Your task to perform on an android device: Open calendar and show me the fourth week of next month Image 0: 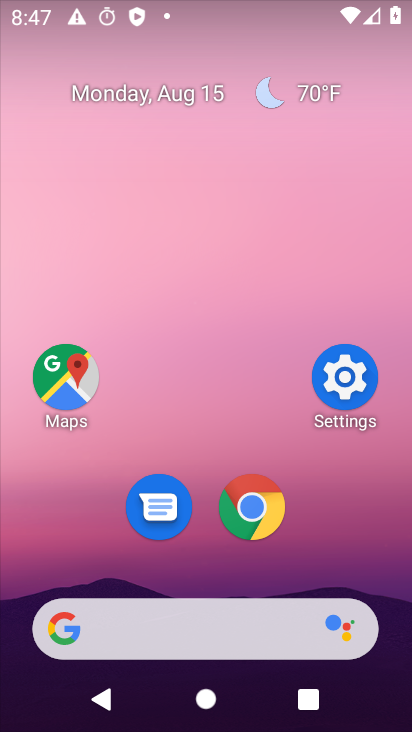
Step 0: drag from (149, 646) to (365, 56)
Your task to perform on an android device: Open calendar and show me the fourth week of next month Image 1: 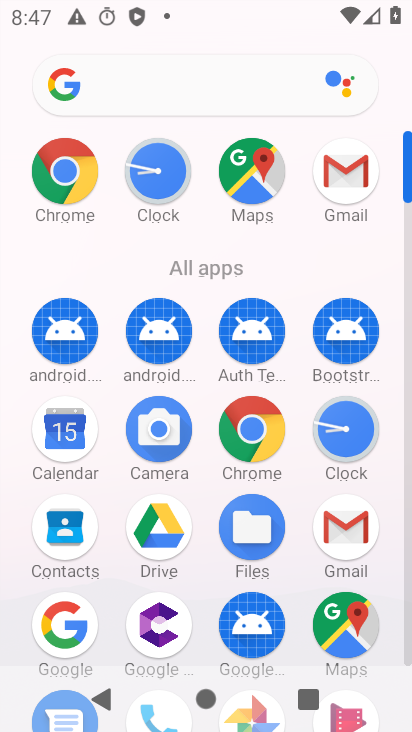
Step 1: click (60, 434)
Your task to perform on an android device: Open calendar and show me the fourth week of next month Image 2: 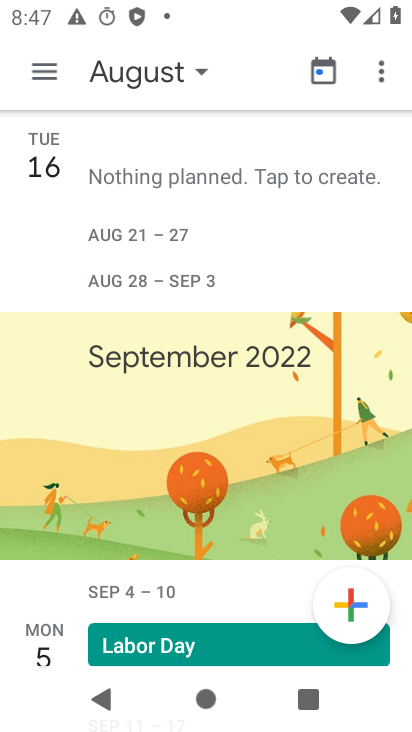
Step 2: drag from (165, 517) to (263, 63)
Your task to perform on an android device: Open calendar and show me the fourth week of next month Image 3: 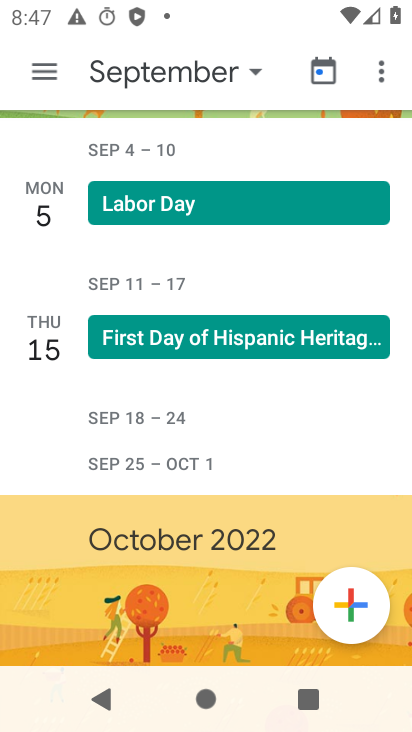
Step 3: click (152, 75)
Your task to perform on an android device: Open calendar and show me the fourth week of next month Image 4: 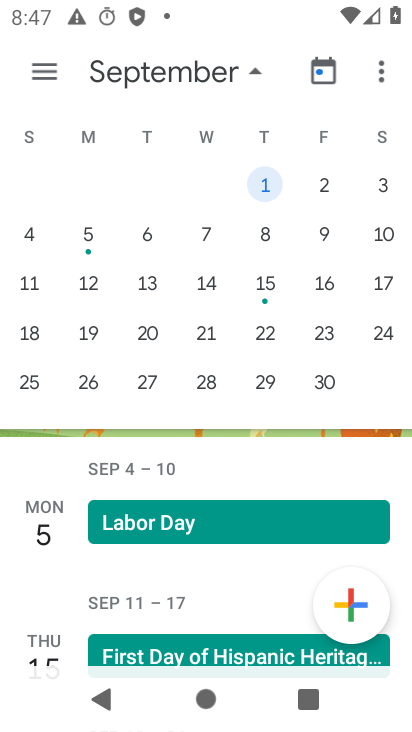
Step 4: click (34, 332)
Your task to perform on an android device: Open calendar and show me the fourth week of next month Image 5: 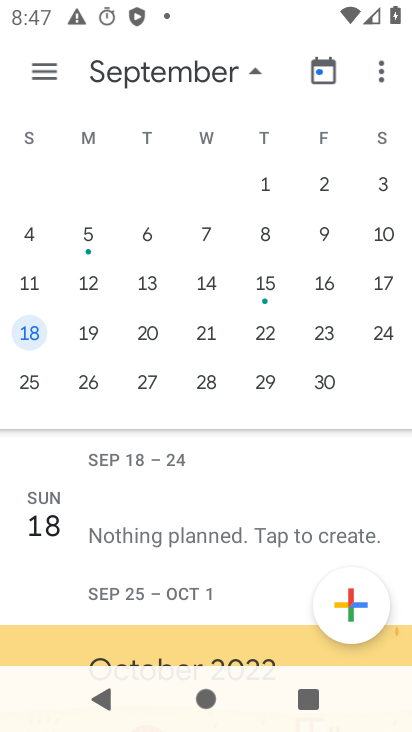
Step 5: click (49, 74)
Your task to perform on an android device: Open calendar and show me the fourth week of next month Image 6: 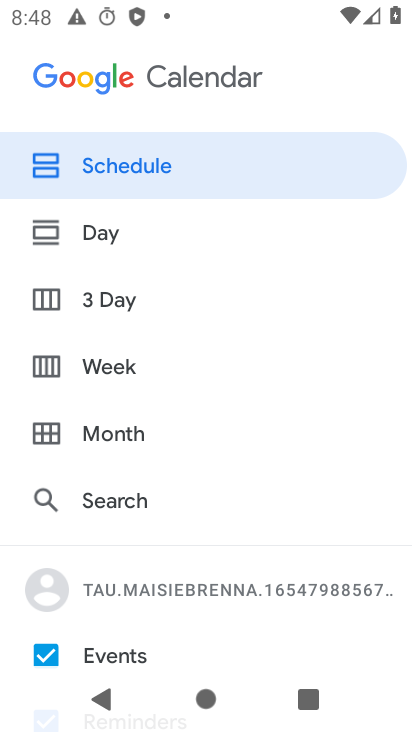
Step 6: click (108, 366)
Your task to perform on an android device: Open calendar and show me the fourth week of next month Image 7: 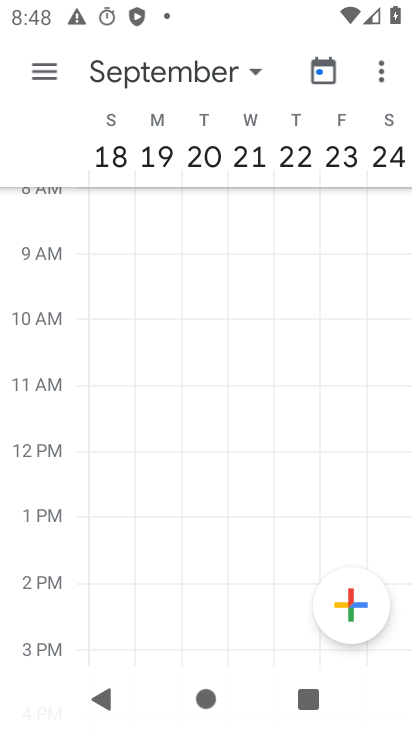
Step 7: task complete